Your task to perform on an android device: What's the news in Argentina? Image 0: 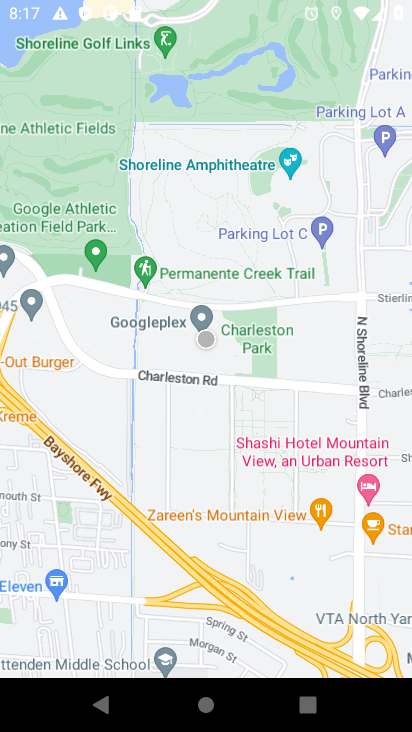
Step 0: click (128, 550)
Your task to perform on an android device: What's the news in Argentina? Image 1: 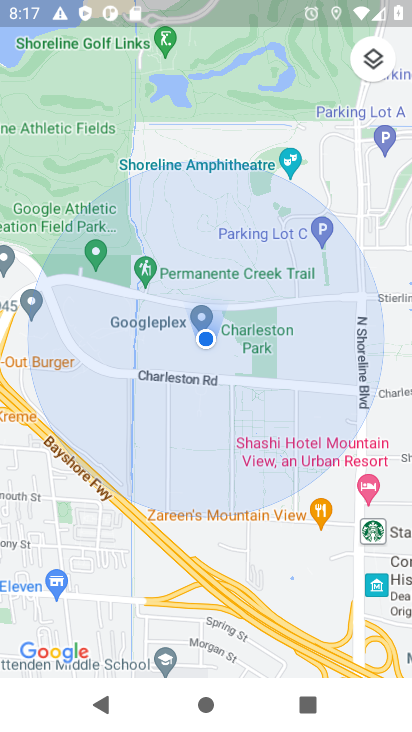
Step 1: press home button
Your task to perform on an android device: What's the news in Argentina? Image 2: 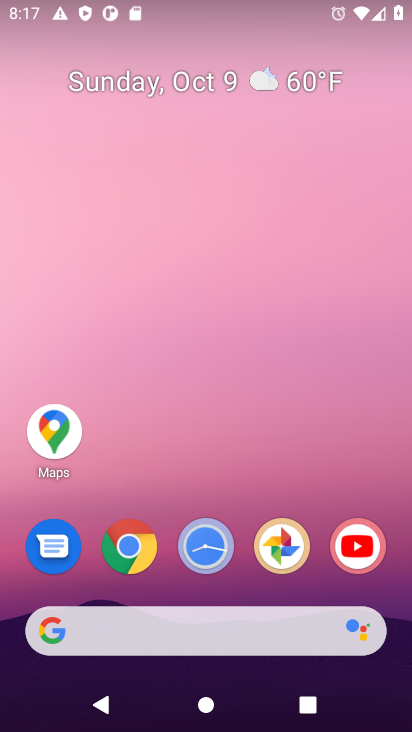
Step 2: click (130, 538)
Your task to perform on an android device: What's the news in Argentina? Image 3: 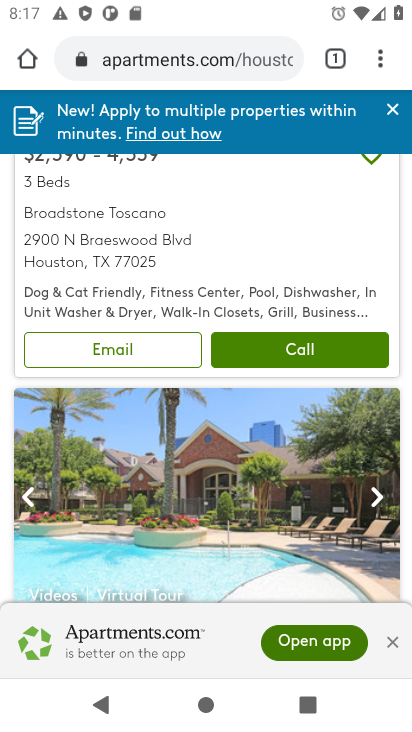
Step 3: click (222, 60)
Your task to perform on an android device: What's the news in Argentina? Image 4: 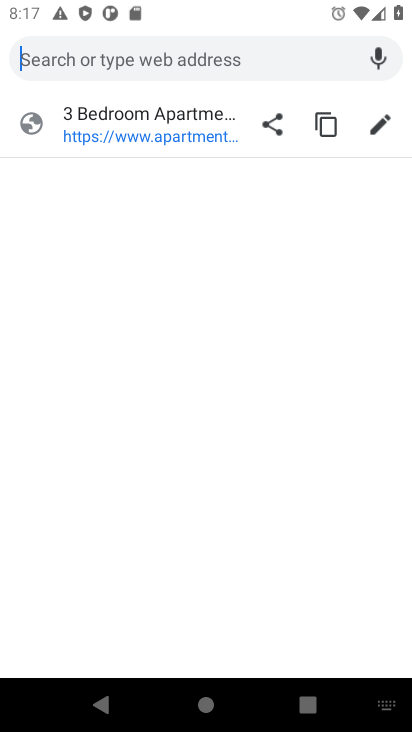
Step 4: type "news in argentina"
Your task to perform on an android device: What's the news in Argentina? Image 5: 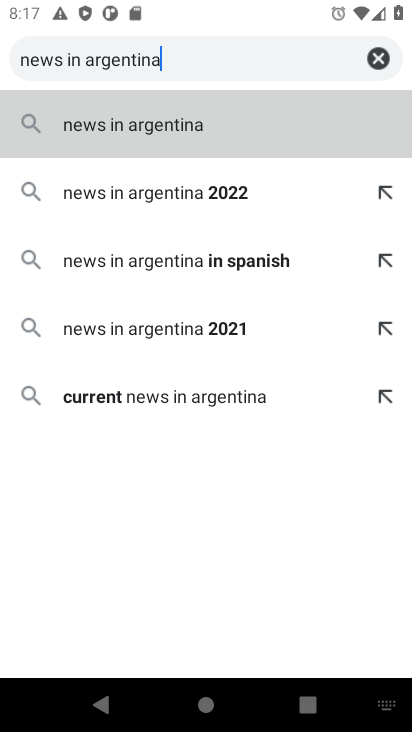
Step 5: press enter
Your task to perform on an android device: What's the news in Argentina? Image 6: 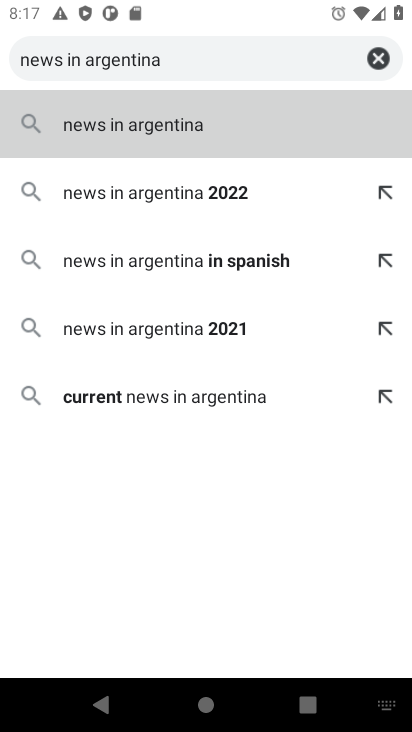
Step 6: type ""
Your task to perform on an android device: What's the news in Argentina? Image 7: 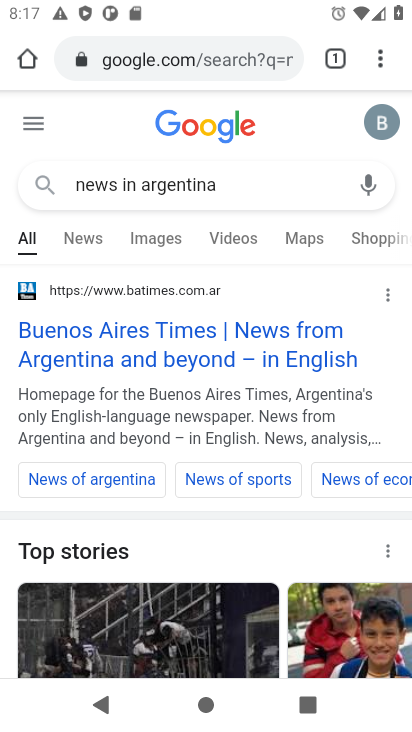
Step 7: drag from (219, 424) to (221, 385)
Your task to perform on an android device: What's the news in Argentina? Image 8: 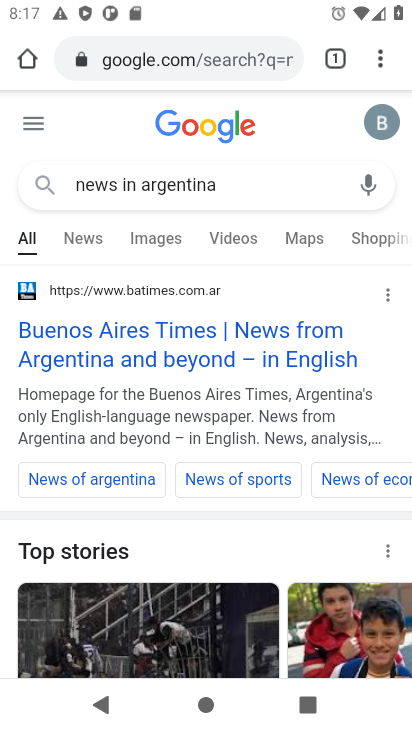
Step 8: click (75, 210)
Your task to perform on an android device: What's the news in Argentina? Image 9: 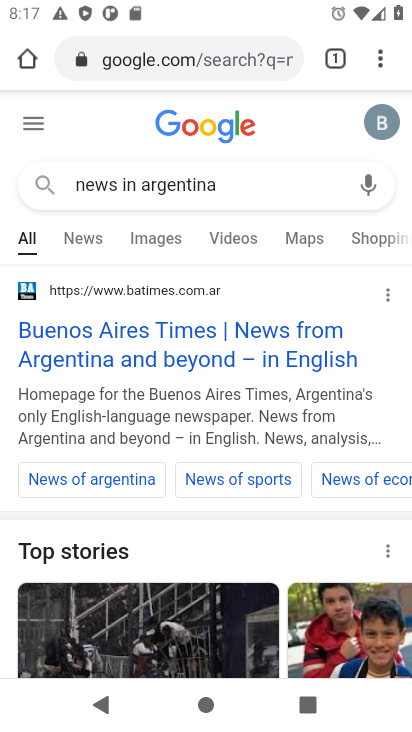
Step 9: click (80, 235)
Your task to perform on an android device: What's the news in Argentina? Image 10: 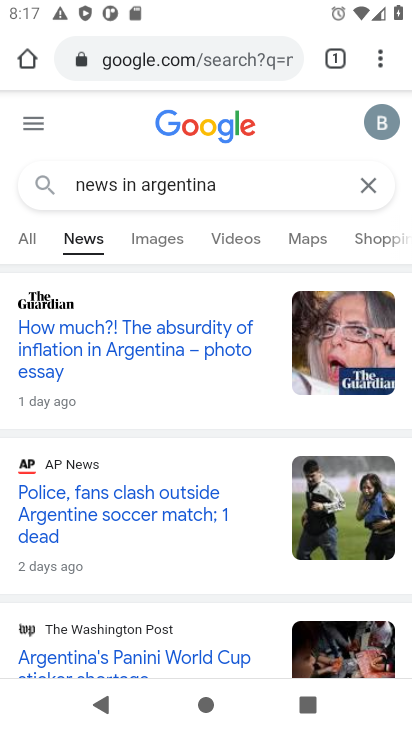
Step 10: task complete